Your task to perform on an android device: Go to sound settings Image 0: 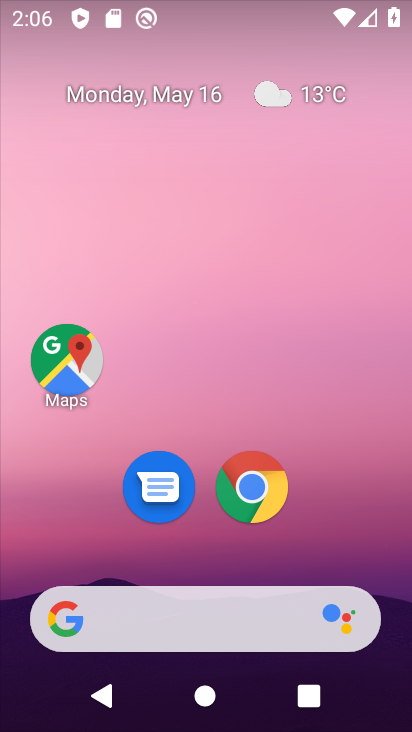
Step 0: drag from (317, 519) to (67, 80)
Your task to perform on an android device: Go to sound settings Image 1: 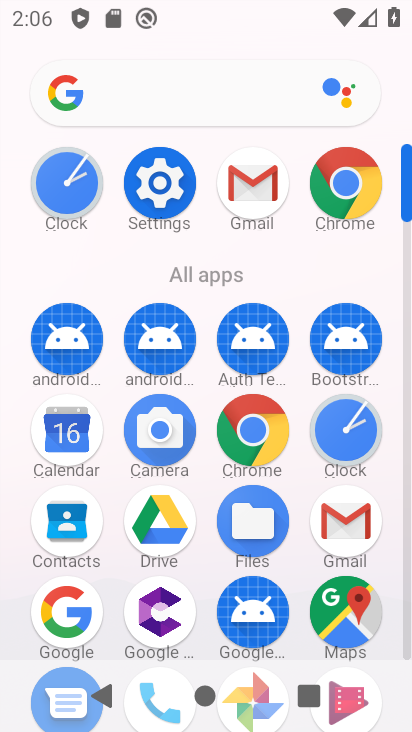
Step 1: click (161, 183)
Your task to perform on an android device: Go to sound settings Image 2: 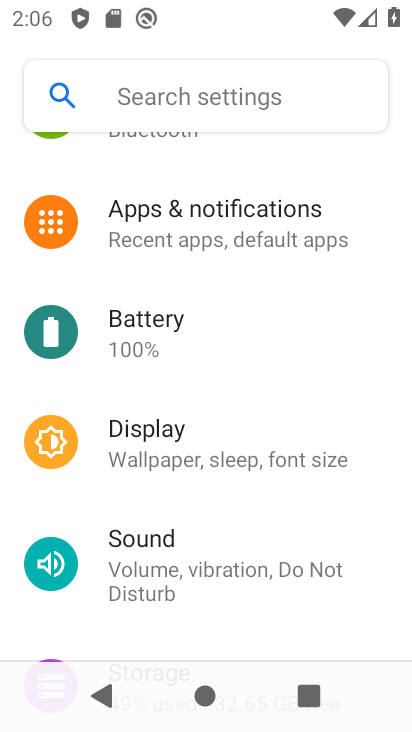
Step 2: click (176, 555)
Your task to perform on an android device: Go to sound settings Image 3: 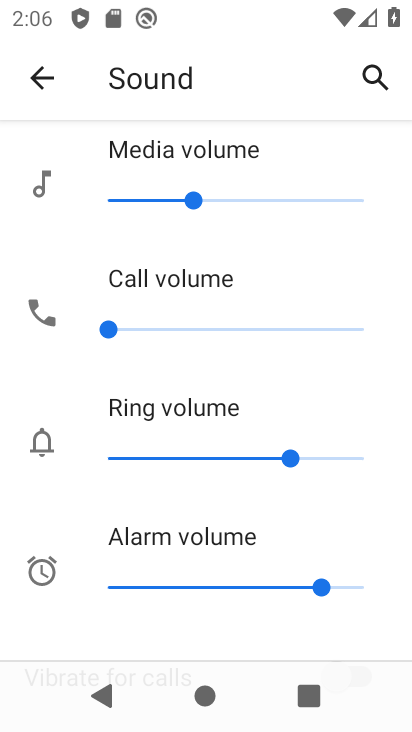
Step 3: drag from (152, 613) to (72, 146)
Your task to perform on an android device: Go to sound settings Image 4: 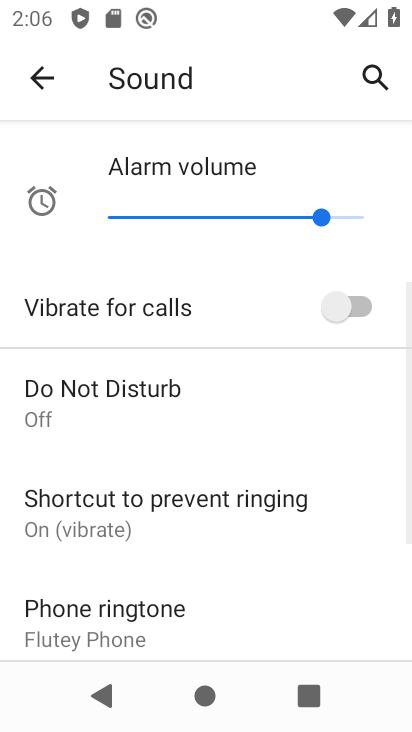
Step 4: drag from (130, 596) to (107, 215)
Your task to perform on an android device: Go to sound settings Image 5: 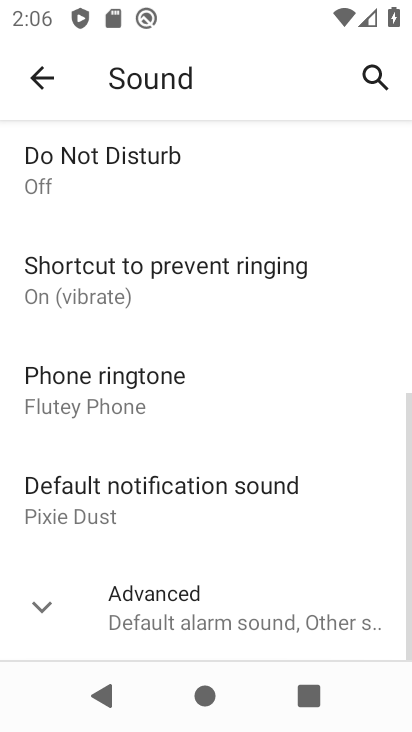
Step 5: click (110, 592)
Your task to perform on an android device: Go to sound settings Image 6: 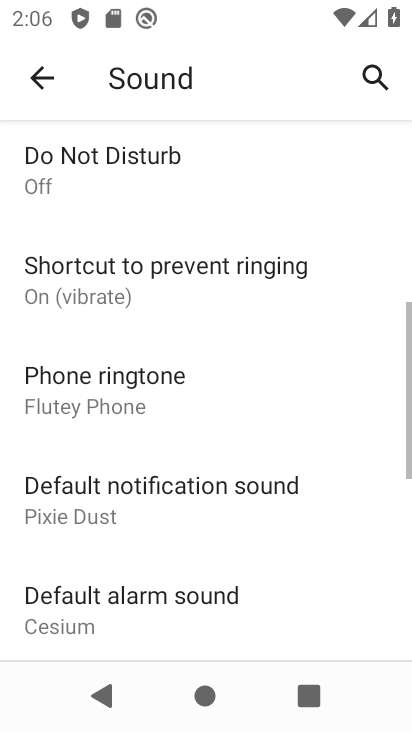
Step 6: task complete